Your task to perform on an android device: change your default location settings in chrome Image 0: 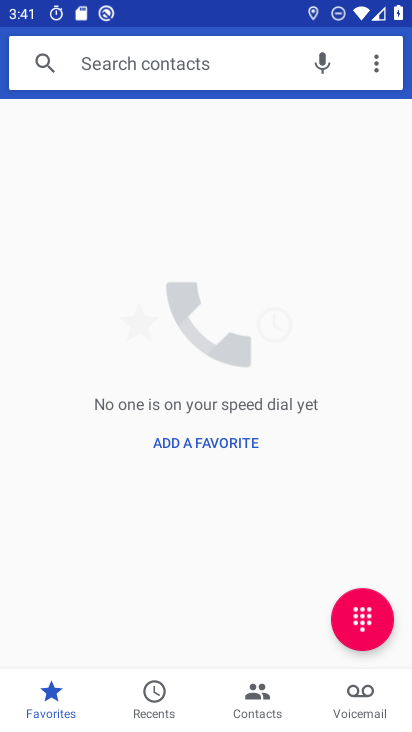
Step 0: press home button
Your task to perform on an android device: change your default location settings in chrome Image 1: 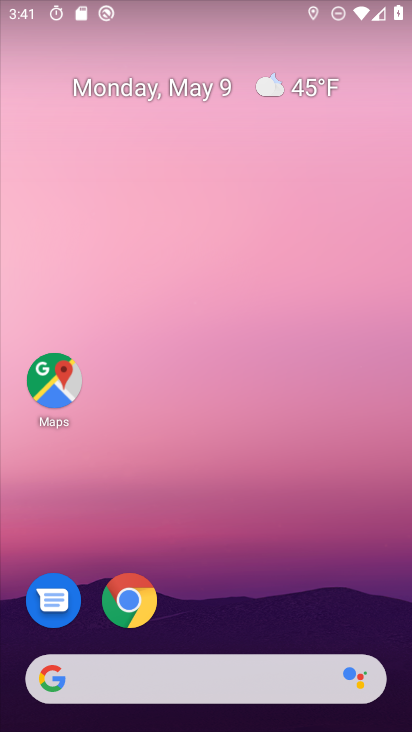
Step 1: click (138, 607)
Your task to perform on an android device: change your default location settings in chrome Image 2: 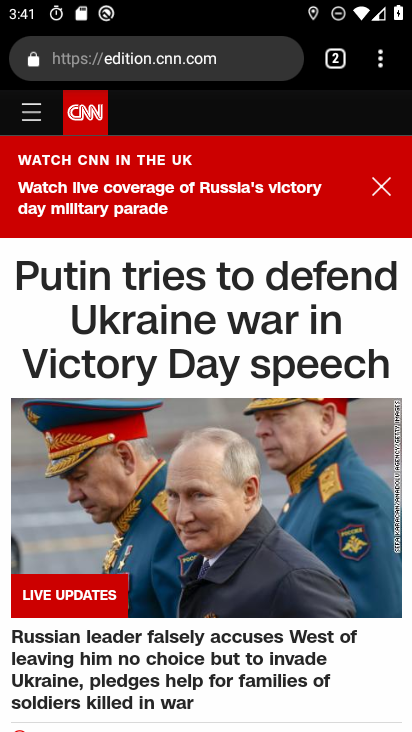
Step 2: click (386, 55)
Your task to perform on an android device: change your default location settings in chrome Image 3: 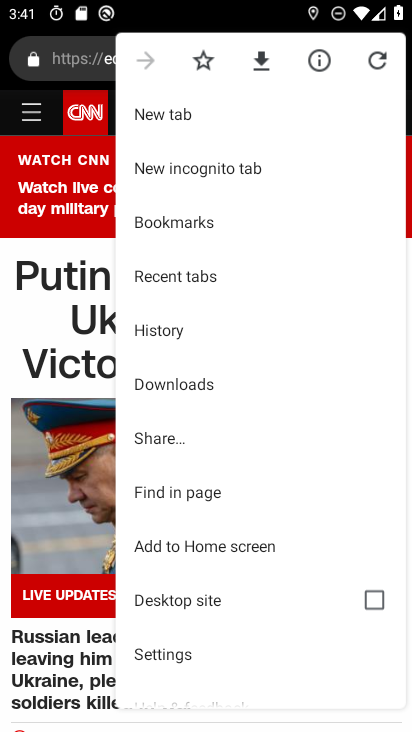
Step 3: click (186, 650)
Your task to perform on an android device: change your default location settings in chrome Image 4: 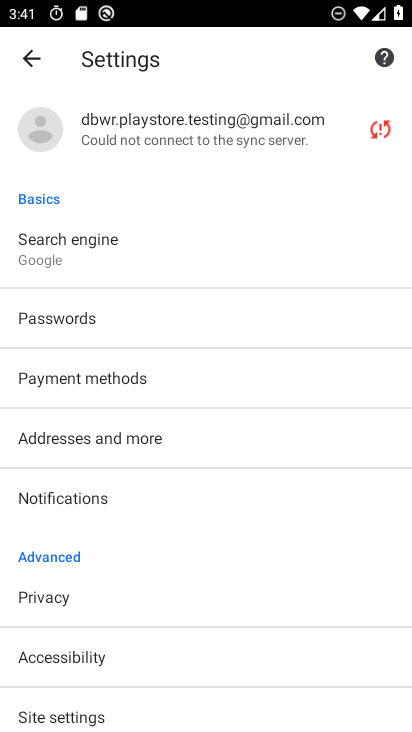
Step 4: click (76, 707)
Your task to perform on an android device: change your default location settings in chrome Image 5: 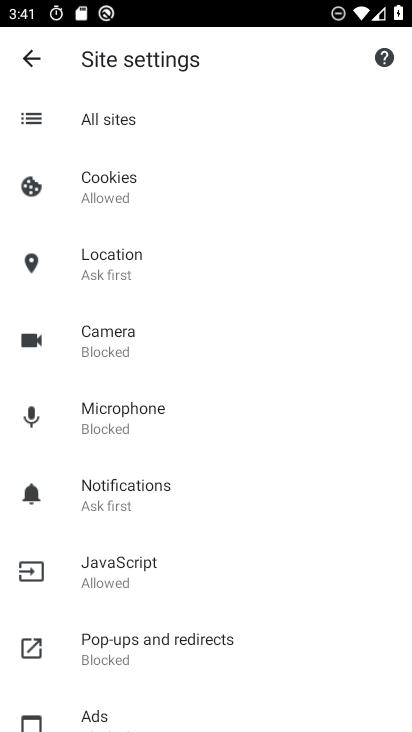
Step 5: click (150, 274)
Your task to perform on an android device: change your default location settings in chrome Image 6: 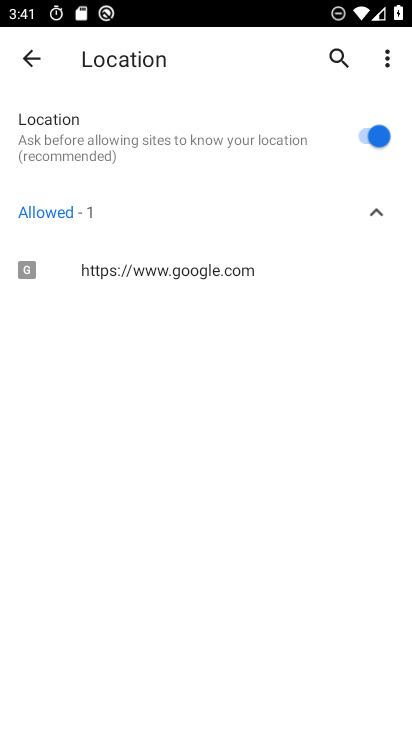
Step 6: click (347, 143)
Your task to perform on an android device: change your default location settings in chrome Image 7: 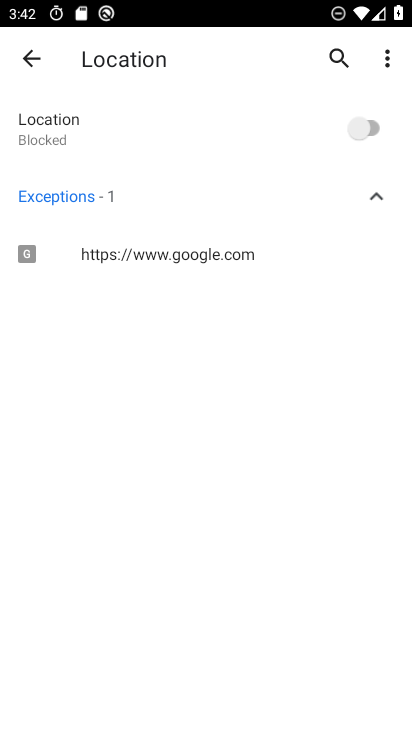
Step 7: task complete